Your task to perform on an android device: Open the stopwatch Image 0: 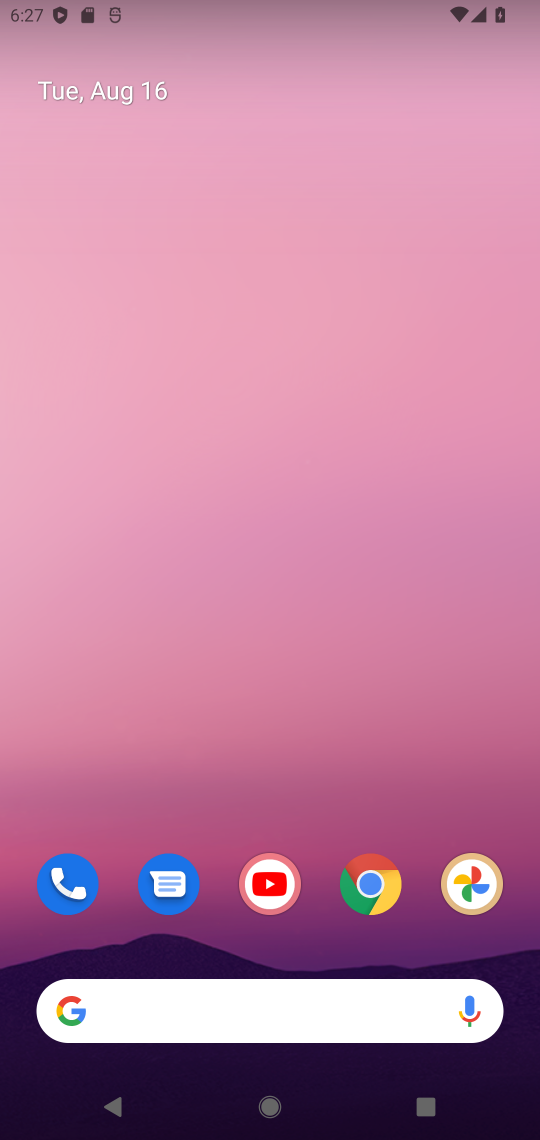
Step 0: press home button
Your task to perform on an android device: Open the stopwatch Image 1: 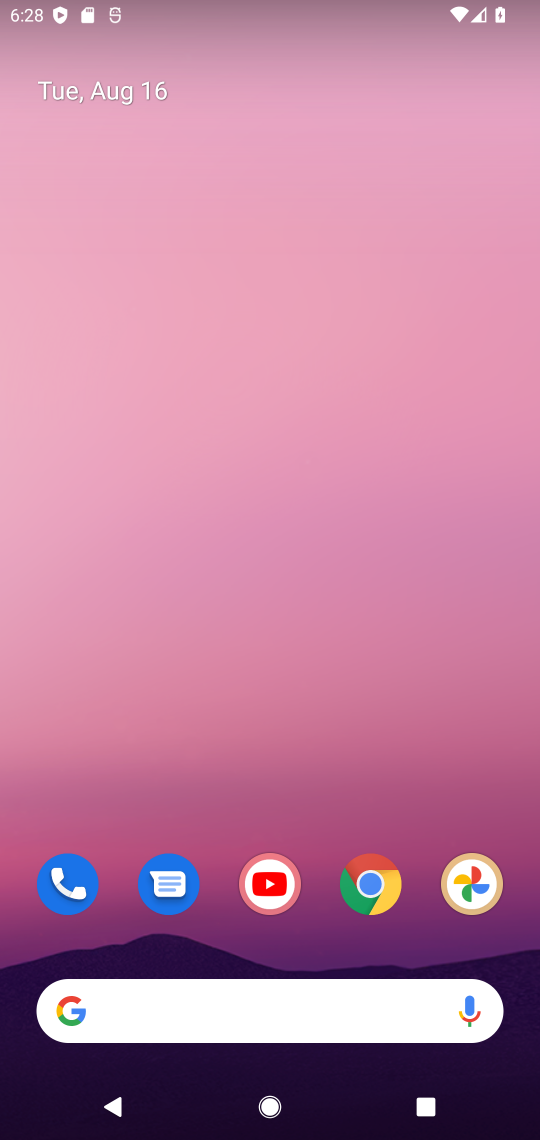
Step 1: drag from (332, 936) to (267, 1)
Your task to perform on an android device: Open the stopwatch Image 2: 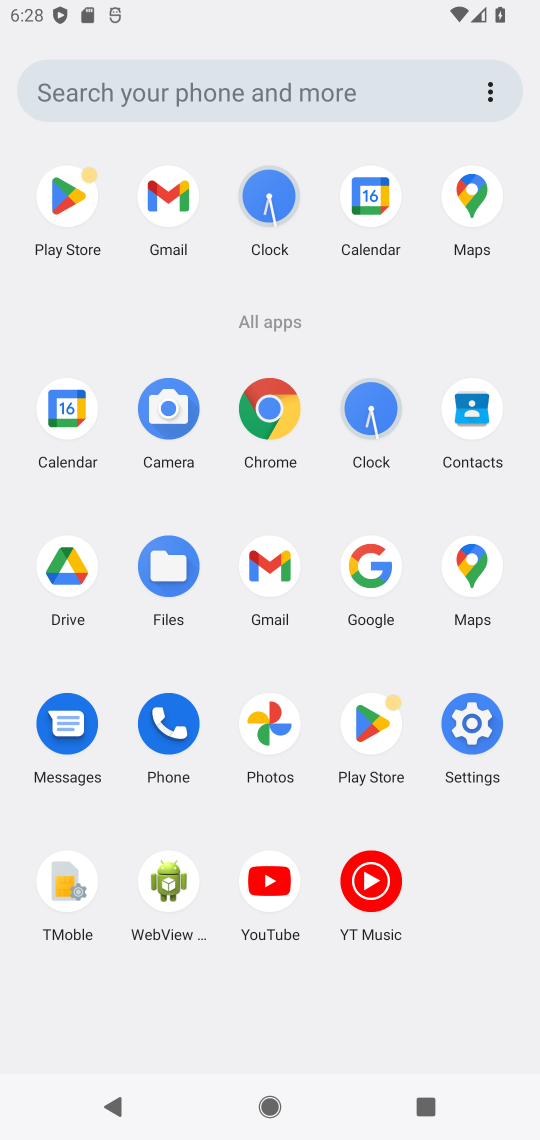
Step 2: click (361, 426)
Your task to perform on an android device: Open the stopwatch Image 3: 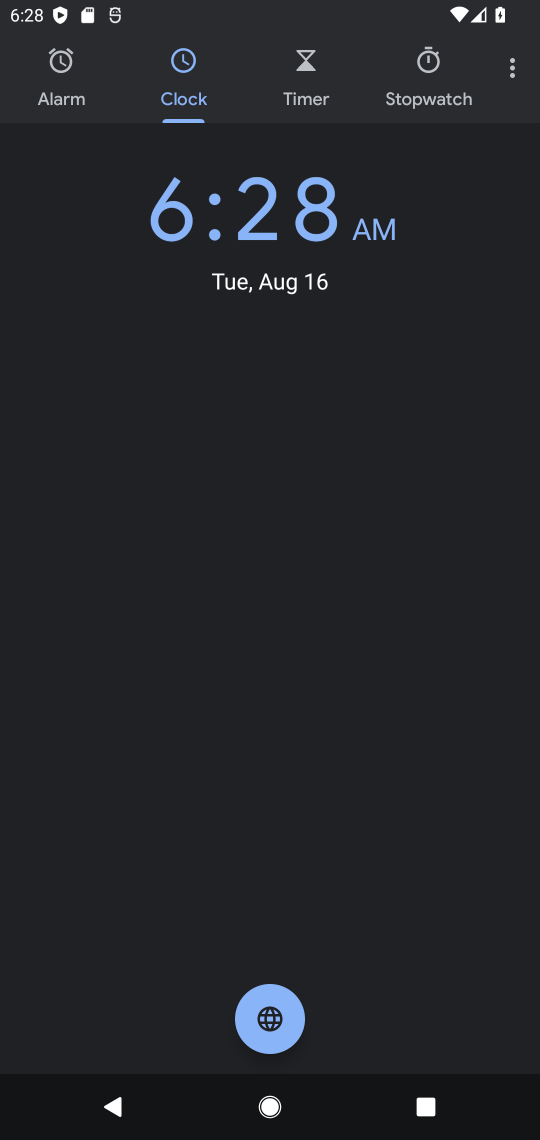
Step 3: click (406, 69)
Your task to perform on an android device: Open the stopwatch Image 4: 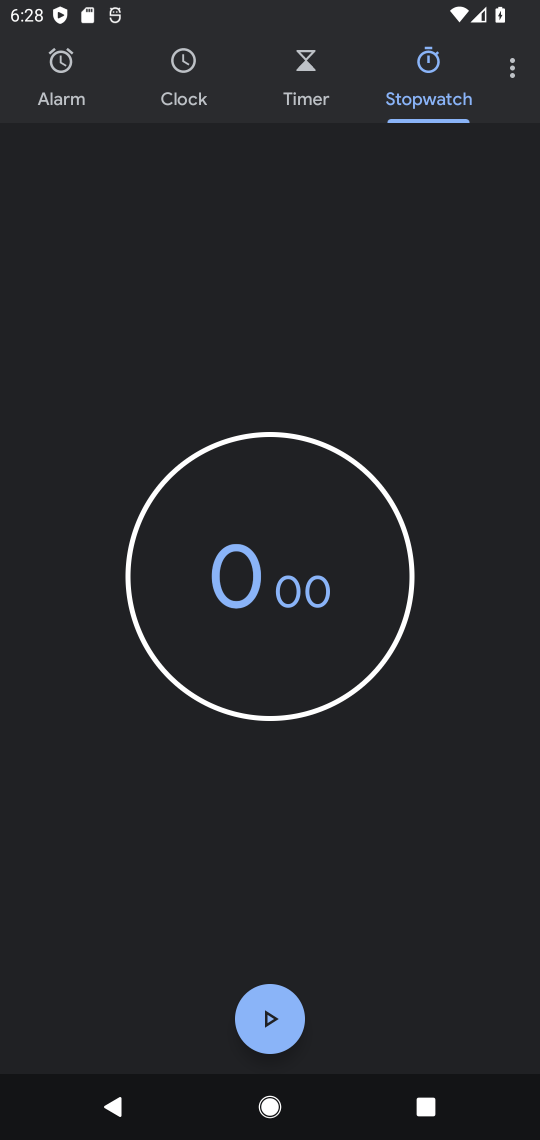
Step 4: task complete